Your task to perform on an android device: Show me recent news Image 0: 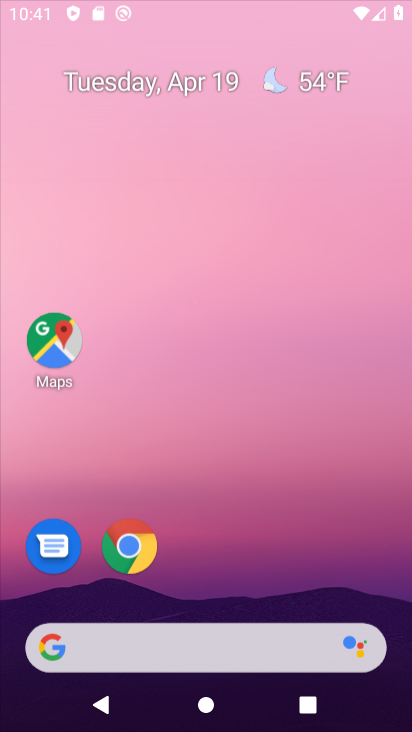
Step 0: press home button
Your task to perform on an android device: Show me recent news Image 1: 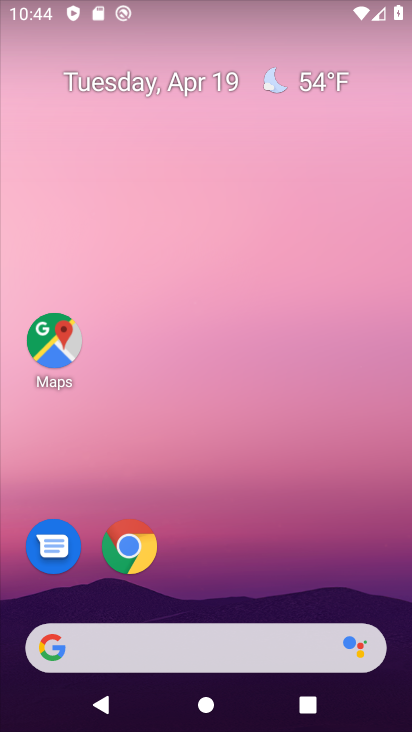
Step 1: click (207, 642)
Your task to perform on an android device: Show me recent news Image 2: 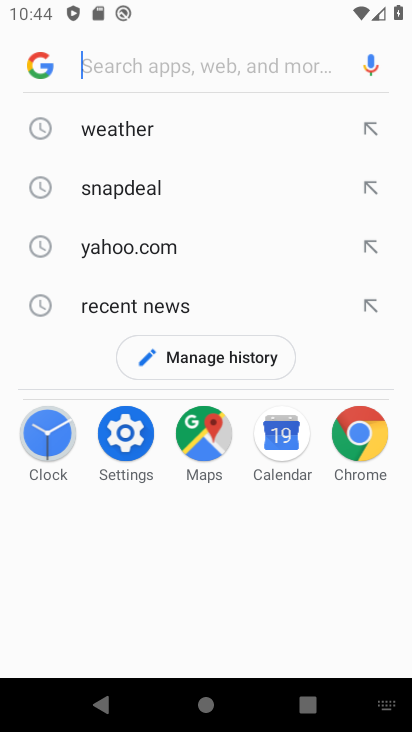
Step 2: click (83, 312)
Your task to perform on an android device: Show me recent news Image 3: 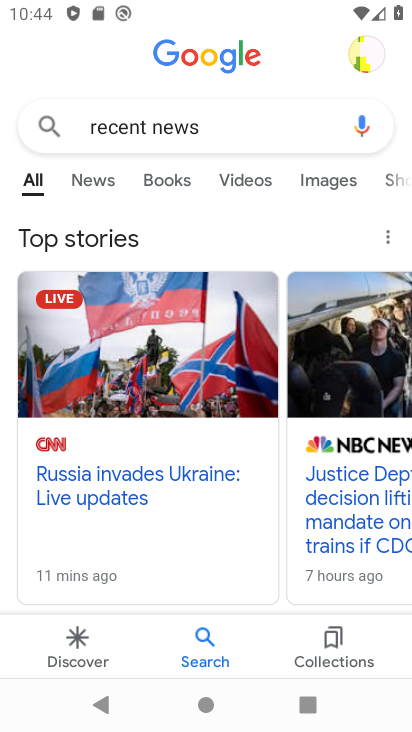
Step 3: task complete